Your task to perform on an android device: Do I have any events this weekend? Image 0: 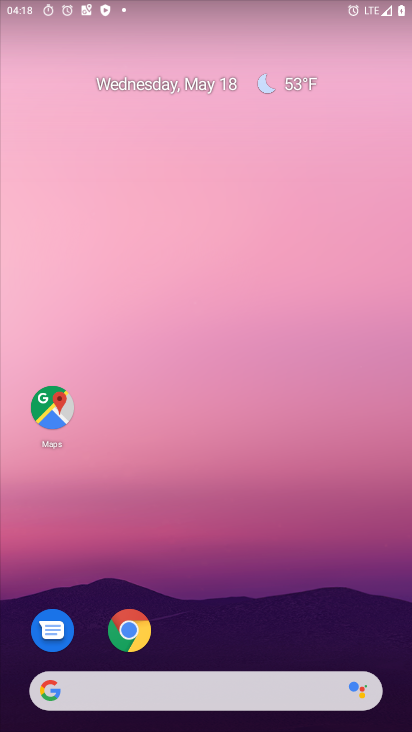
Step 0: drag from (195, 719) to (200, 71)
Your task to perform on an android device: Do I have any events this weekend? Image 1: 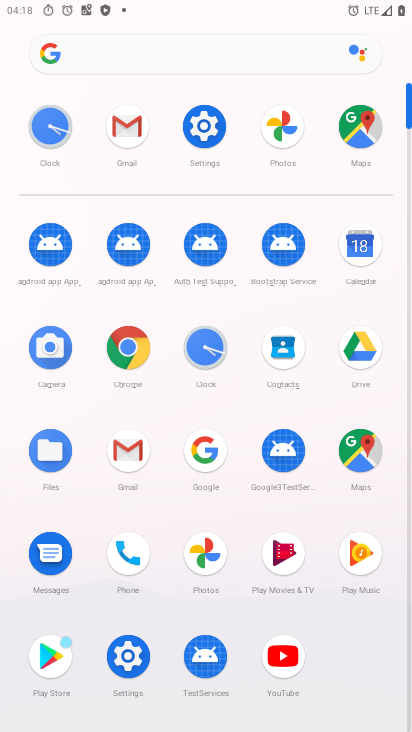
Step 1: click (362, 250)
Your task to perform on an android device: Do I have any events this weekend? Image 2: 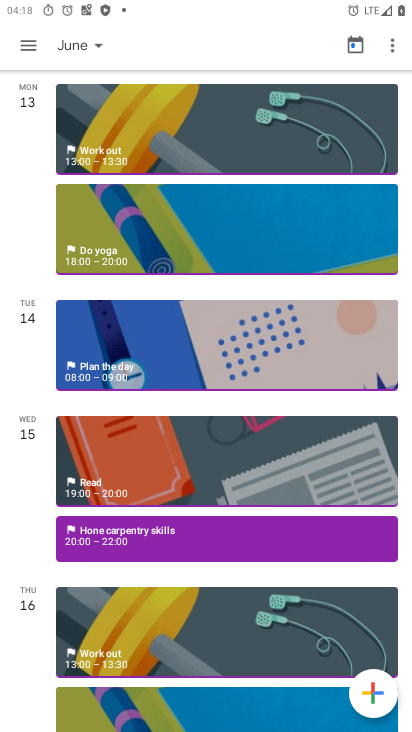
Step 2: click (72, 37)
Your task to perform on an android device: Do I have any events this weekend? Image 3: 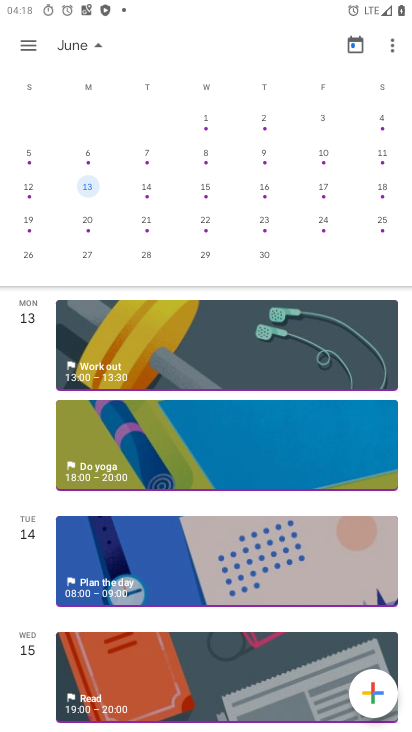
Step 3: drag from (44, 172) to (348, 177)
Your task to perform on an android device: Do I have any events this weekend? Image 4: 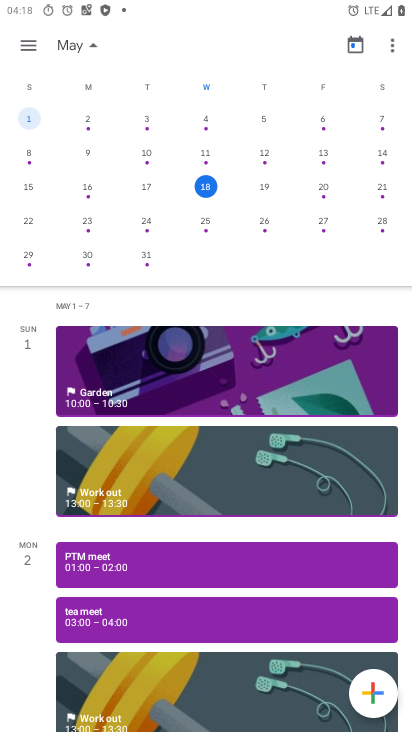
Step 4: click (381, 184)
Your task to perform on an android device: Do I have any events this weekend? Image 5: 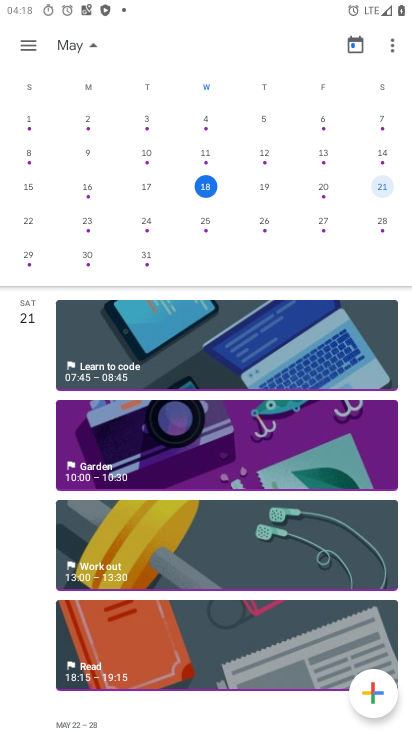
Step 5: click (382, 192)
Your task to perform on an android device: Do I have any events this weekend? Image 6: 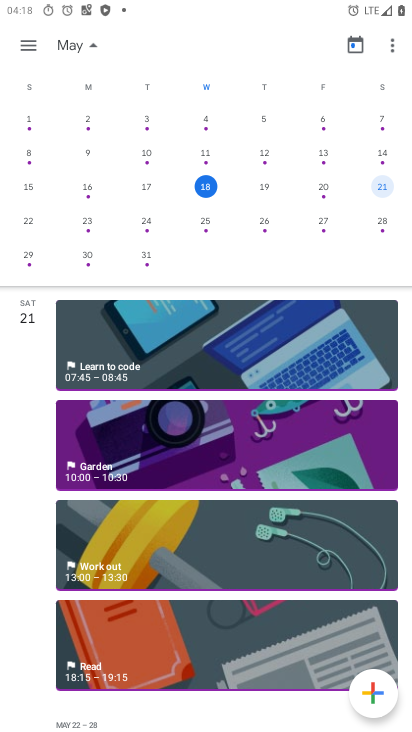
Step 6: task complete